Your task to perform on an android device: change text size in settings app Image 0: 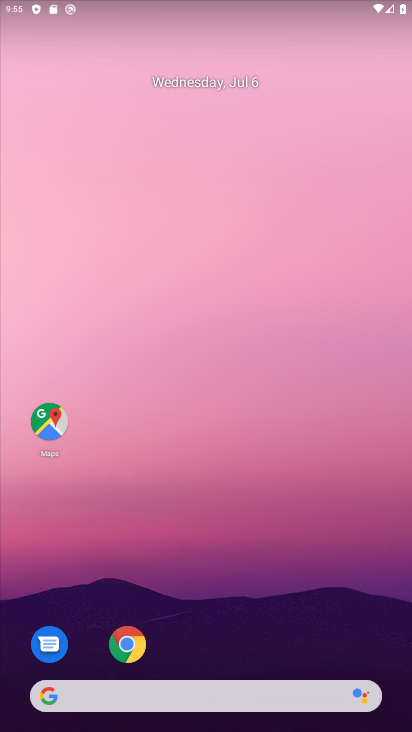
Step 0: drag from (266, 416) to (277, 156)
Your task to perform on an android device: change text size in settings app Image 1: 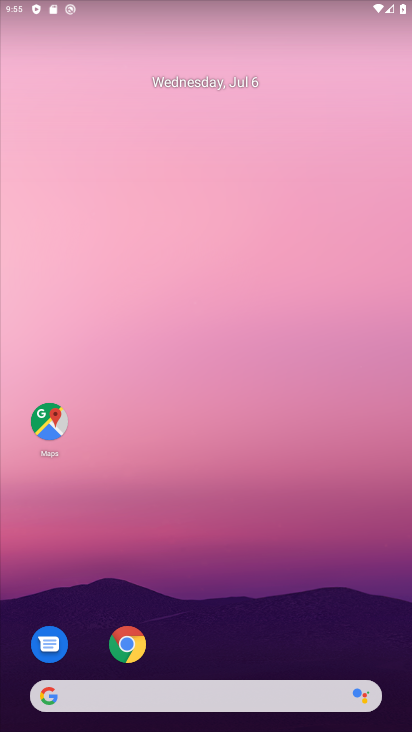
Step 1: drag from (204, 615) to (207, 135)
Your task to perform on an android device: change text size in settings app Image 2: 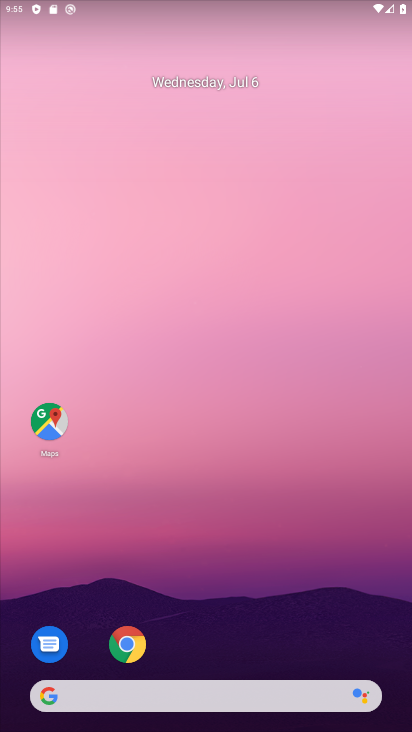
Step 2: drag from (272, 638) to (221, 118)
Your task to perform on an android device: change text size in settings app Image 3: 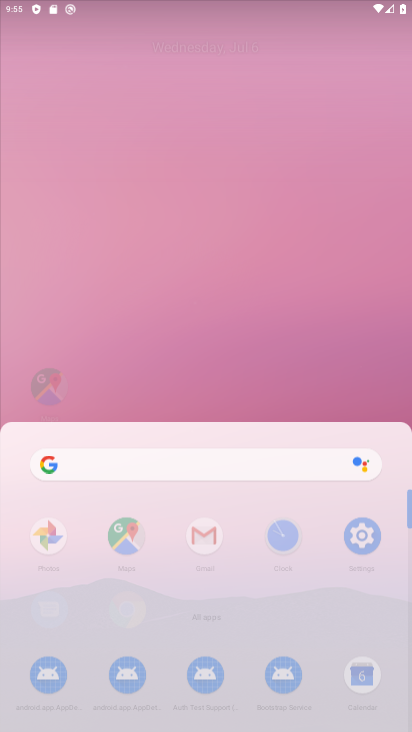
Step 3: drag from (226, 623) to (172, 114)
Your task to perform on an android device: change text size in settings app Image 4: 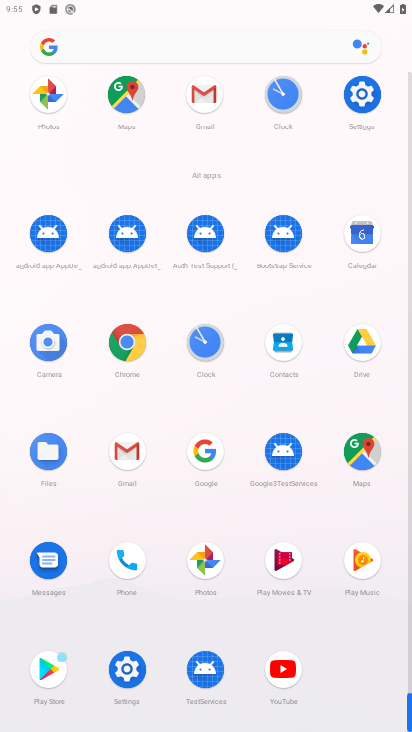
Step 4: click (359, 96)
Your task to perform on an android device: change text size in settings app Image 5: 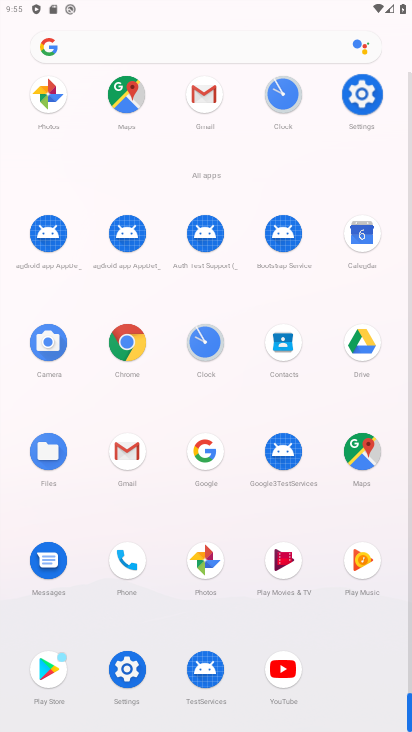
Step 5: click (367, 97)
Your task to perform on an android device: change text size in settings app Image 6: 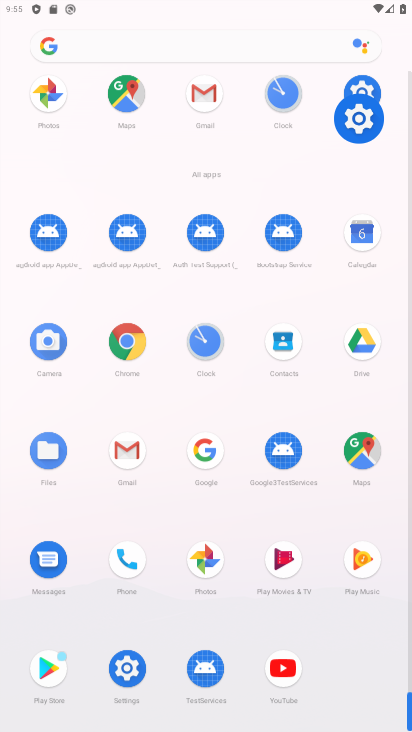
Step 6: click (368, 97)
Your task to perform on an android device: change text size in settings app Image 7: 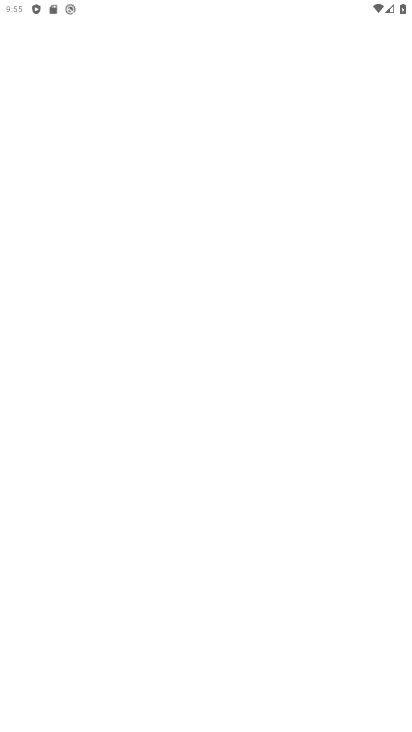
Step 7: click (368, 97)
Your task to perform on an android device: change text size in settings app Image 8: 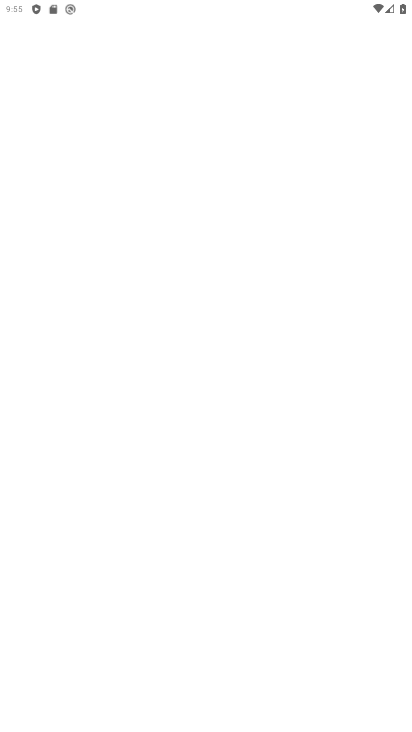
Step 8: click (368, 97)
Your task to perform on an android device: change text size in settings app Image 9: 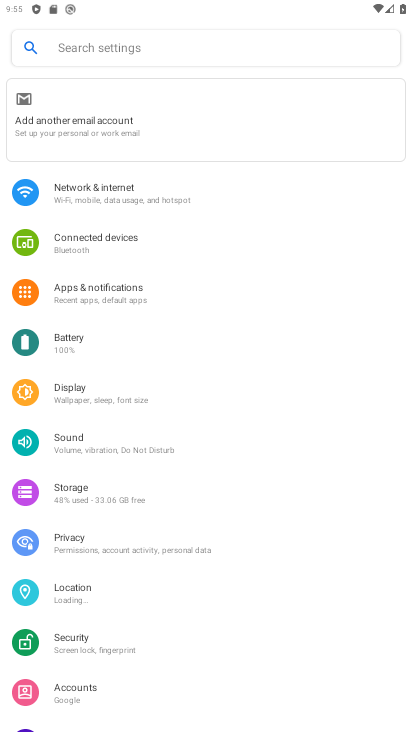
Step 9: click (108, 403)
Your task to perform on an android device: change text size in settings app Image 10: 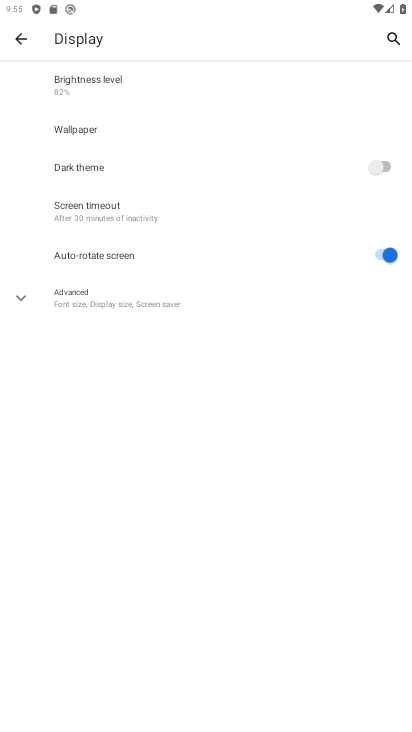
Step 10: click (122, 398)
Your task to perform on an android device: change text size in settings app Image 11: 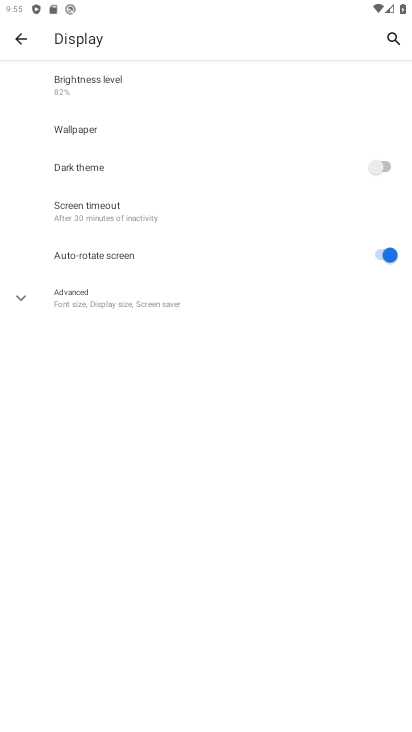
Step 11: click (96, 298)
Your task to perform on an android device: change text size in settings app Image 12: 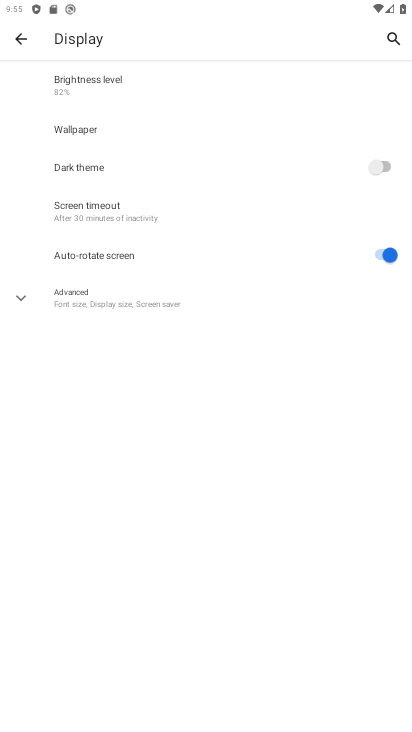
Step 12: click (115, 305)
Your task to perform on an android device: change text size in settings app Image 13: 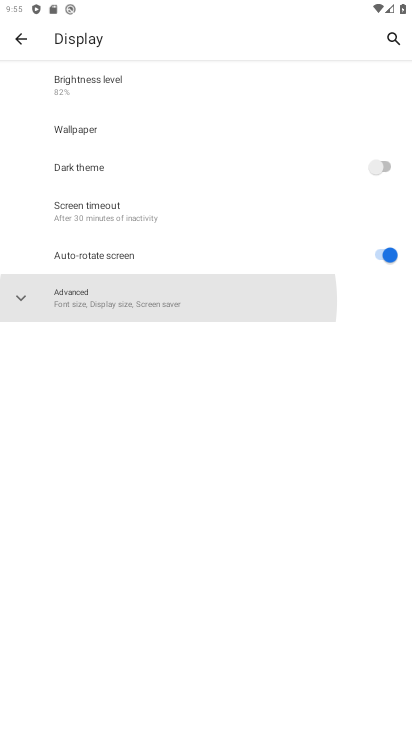
Step 13: click (109, 305)
Your task to perform on an android device: change text size in settings app Image 14: 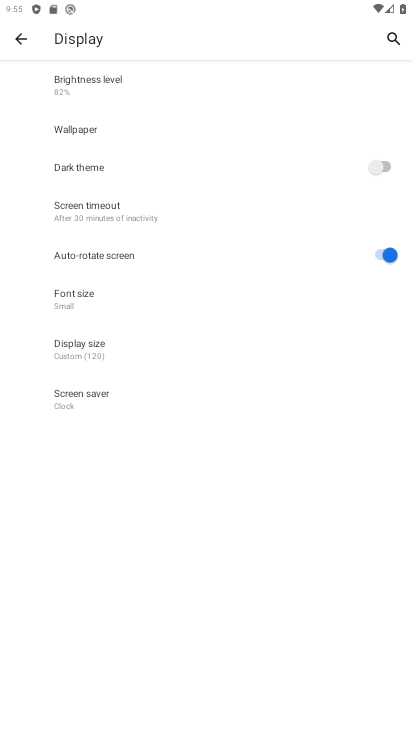
Step 14: click (101, 301)
Your task to perform on an android device: change text size in settings app Image 15: 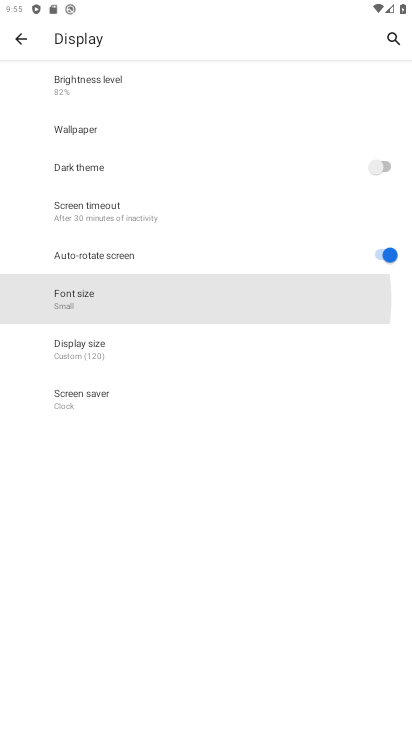
Step 15: click (100, 301)
Your task to perform on an android device: change text size in settings app Image 16: 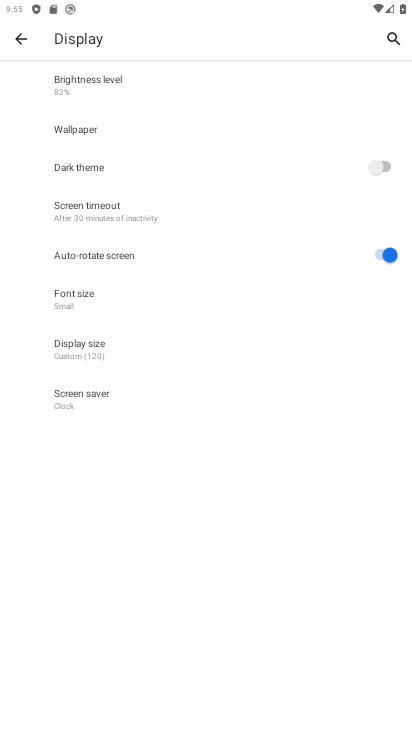
Step 16: click (100, 301)
Your task to perform on an android device: change text size in settings app Image 17: 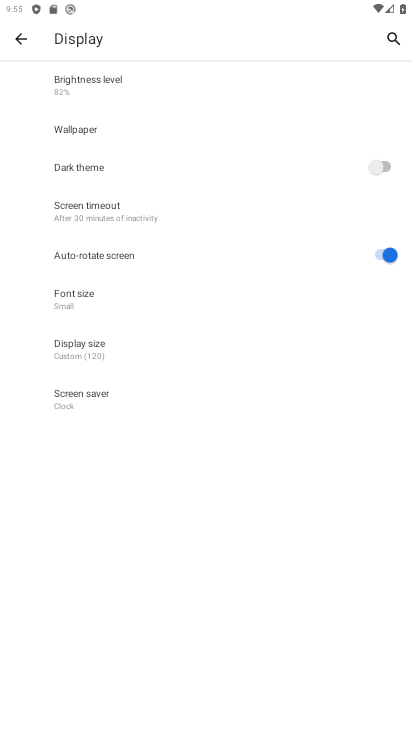
Step 17: click (100, 301)
Your task to perform on an android device: change text size in settings app Image 18: 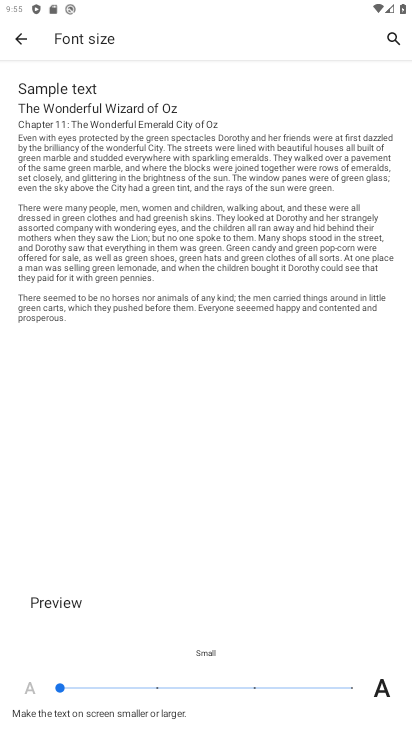
Step 18: click (84, 300)
Your task to perform on an android device: change text size in settings app Image 19: 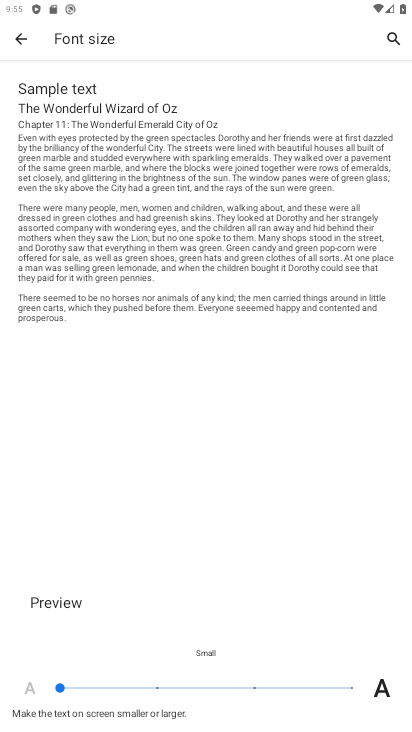
Step 19: click (147, 685)
Your task to perform on an android device: change text size in settings app Image 20: 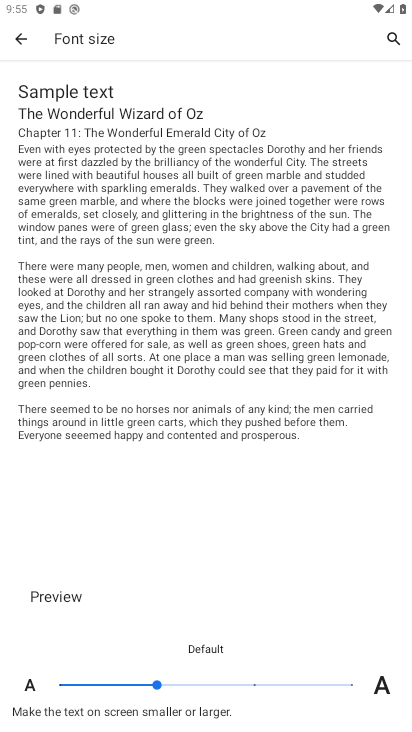
Step 20: task complete